Your task to perform on an android device: Search for pizza restaurants on Maps Image 0: 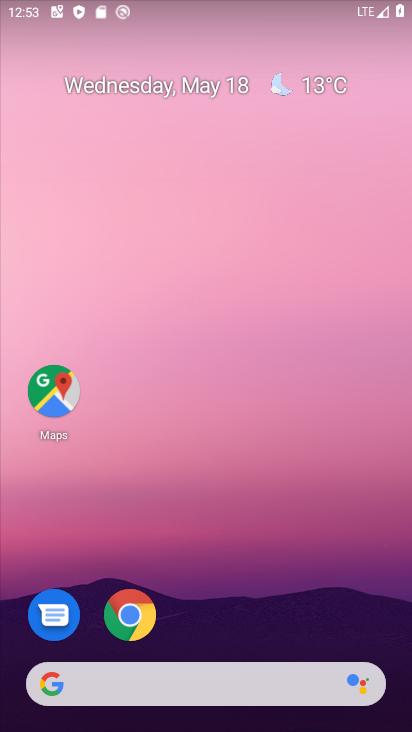
Step 0: click (63, 398)
Your task to perform on an android device: Search for pizza restaurants on Maps Image 1: 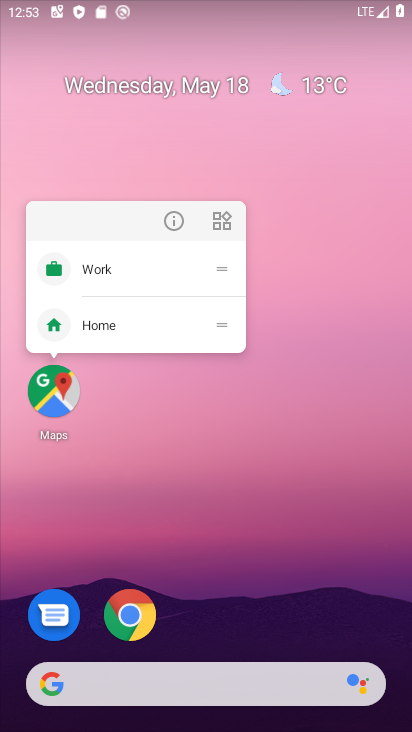
Step 1: click (57, 404)
Your task to perform on an android device: Search for pizza restaurants on Maps Image 2: 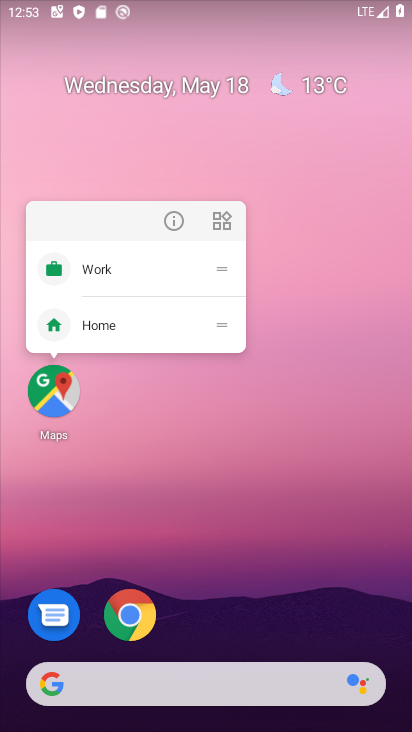
Step 2: click (57, 404)
Your task to perform on an android device: Search for pizza restaurants on Maps Image 3: 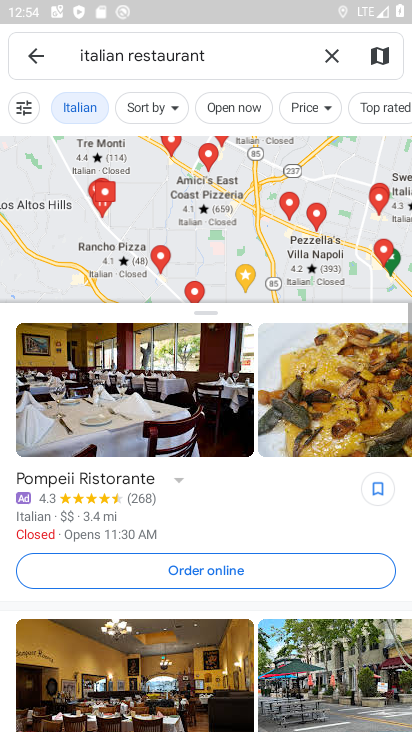
Step 3: click (328, 60)
Your task to perform on an android device: Search for pizza restaurants on Maps Image 4: 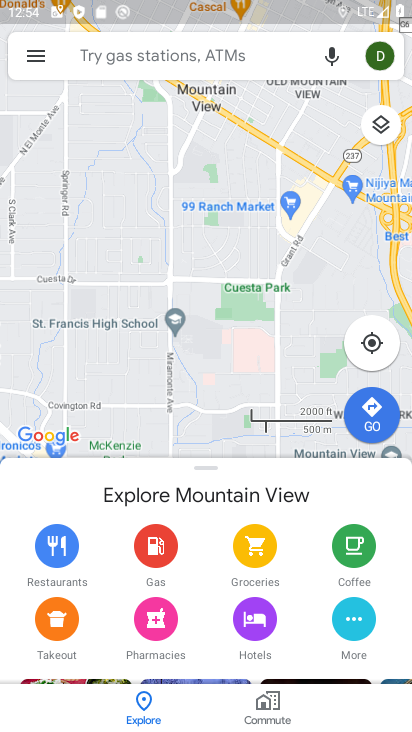
Step 4: click (203, 55)
Your task to perform on an android device: Search for pizza restaurants on Maps Image 5: 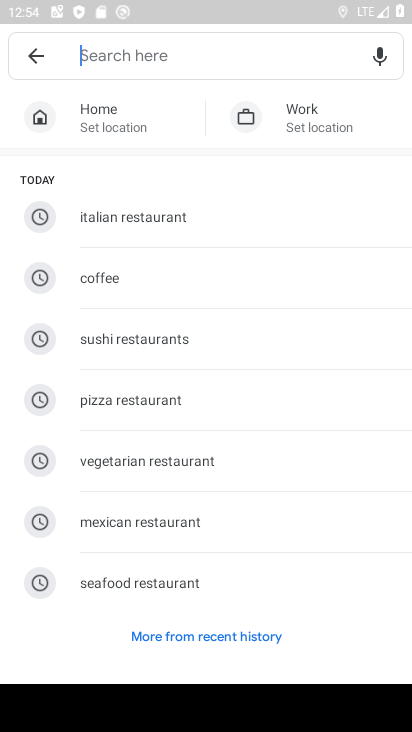
Step 5: click (150, 405)
Your task to perform on an android device: Search for pizza restaurants on Maps Image 6: 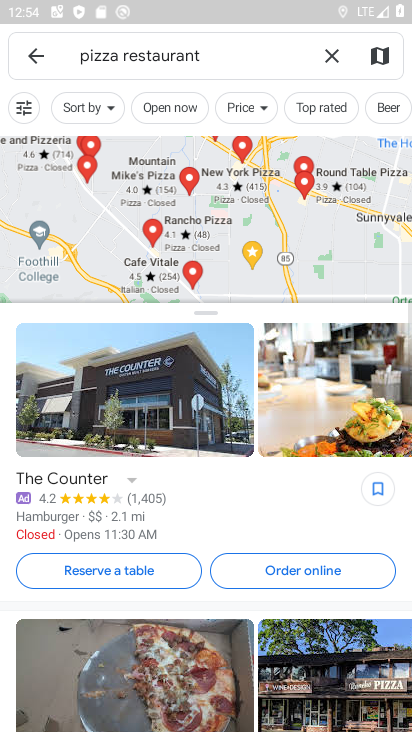
Step 6: task complete